Your task to perform on an android device: turn off sleep mode Image 0: 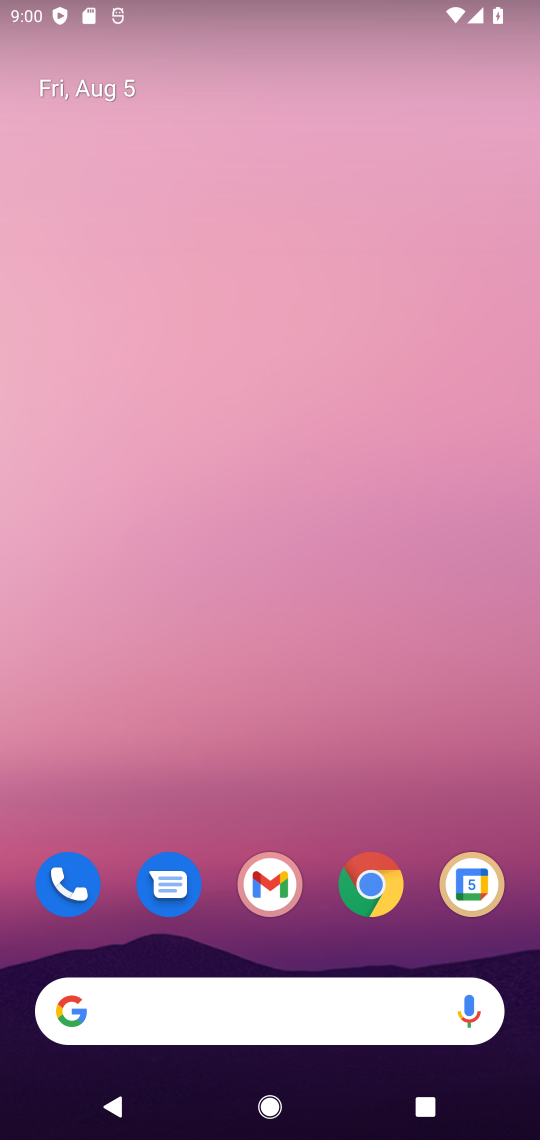
Step 0: drag from (330, 764) to (322, 349)
Your task to perform on an android device: turn off sleep mode Image 1: 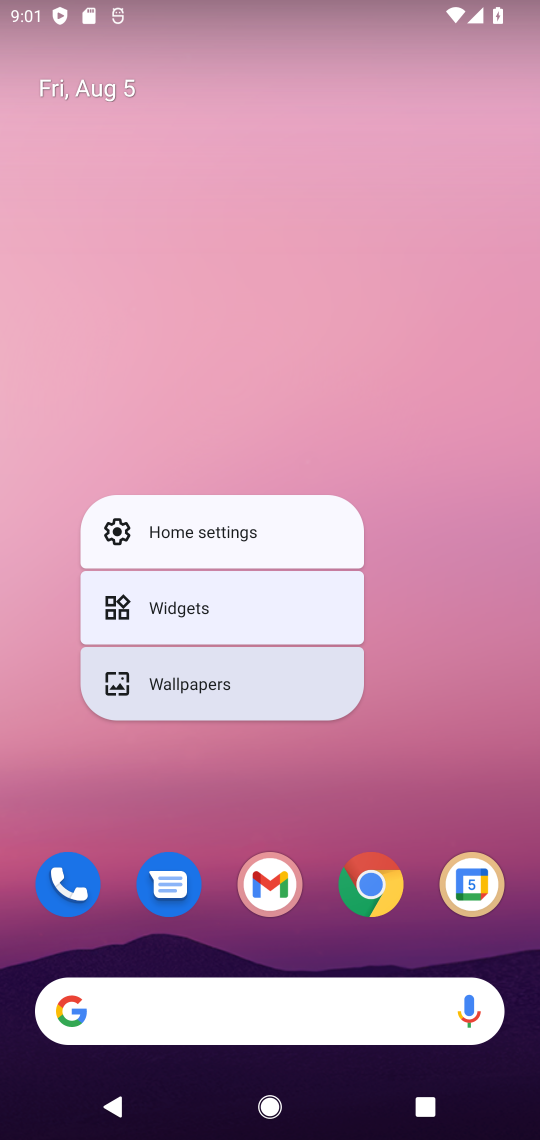
Step 1: click (407, 755)
Your task to perform on an android device: turn off sleep mode Image 2: 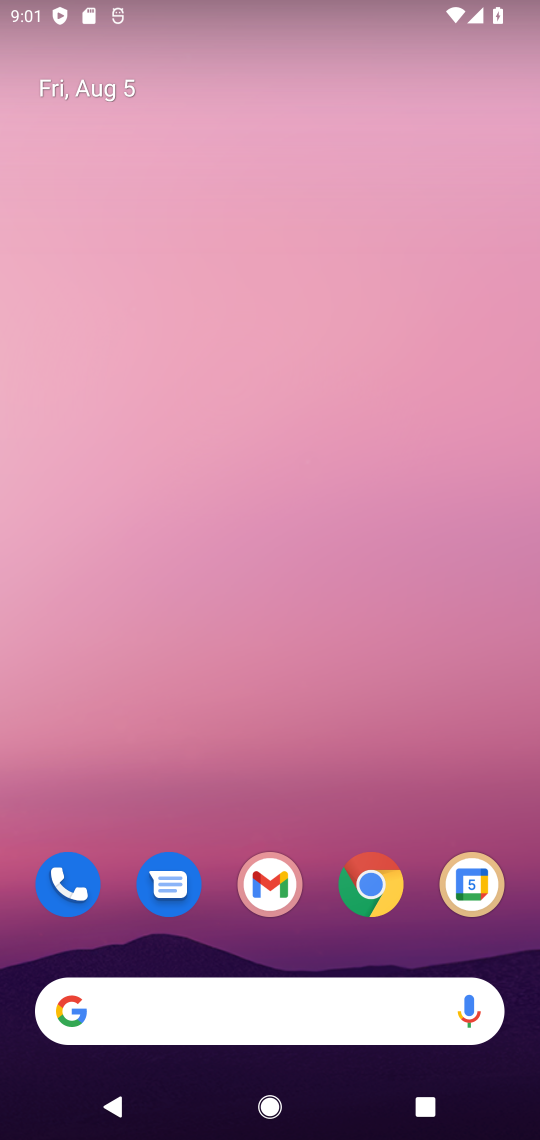
Step 2: drag from (311, 778) to (311, 307)
Your task to perform on an android device: turn off sleep mode Image 3: 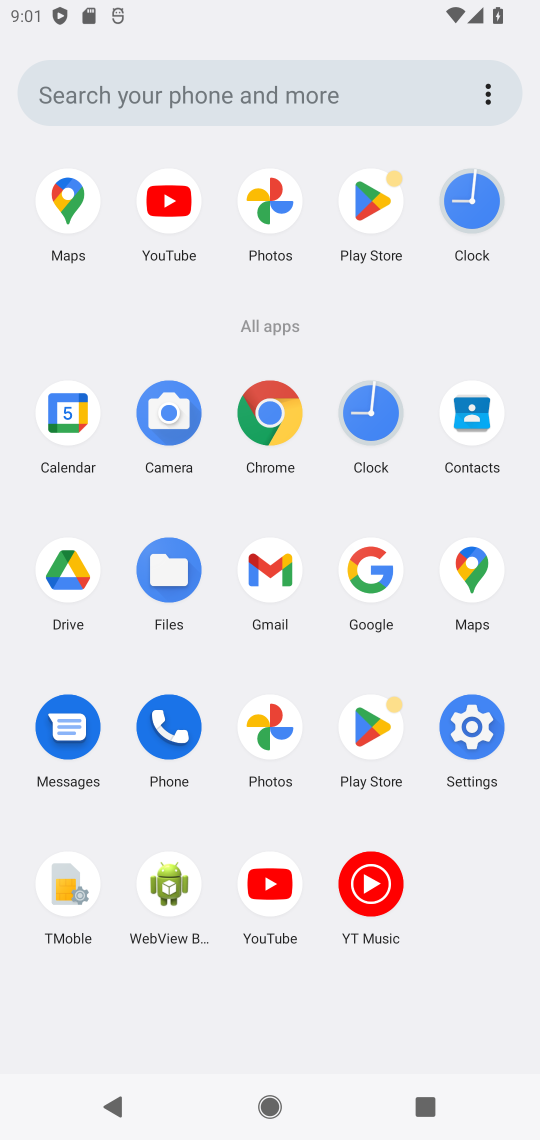
Step 3: click (479, 731)
Your task to perform on an android device: turn off sleep mode Image 4: 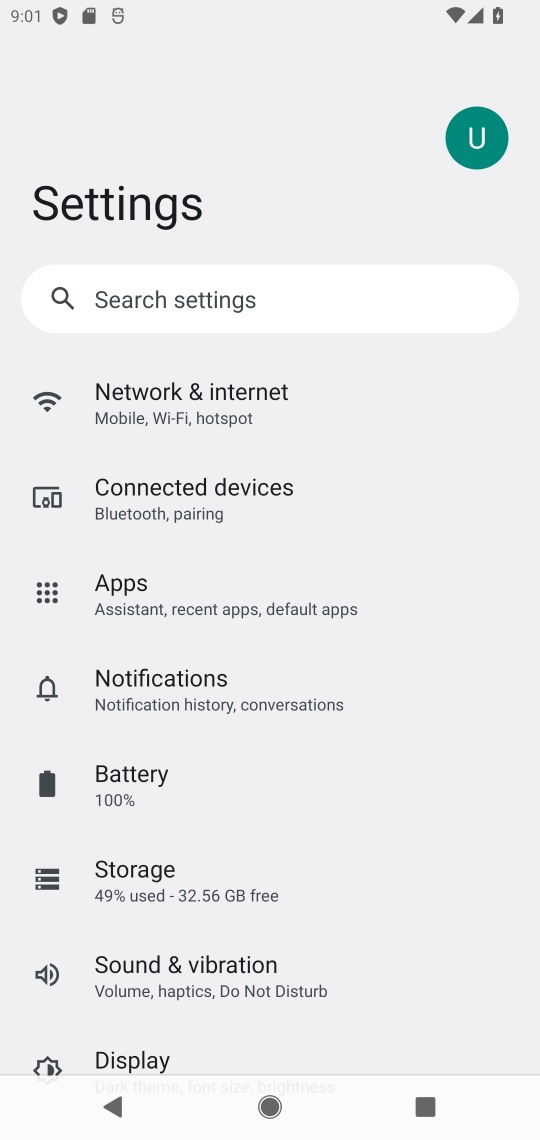
Step 4: task complete